Your task to perform on an android device: Open Android settings Image 0: 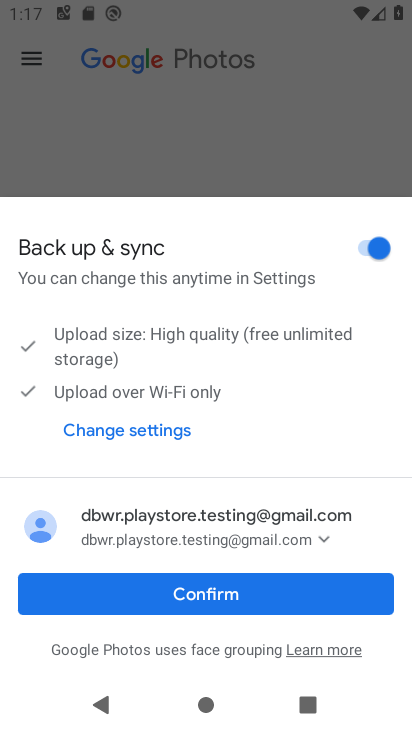
Step 0: press home button
Your task to perform on an android device: Open Android settings Image 1: 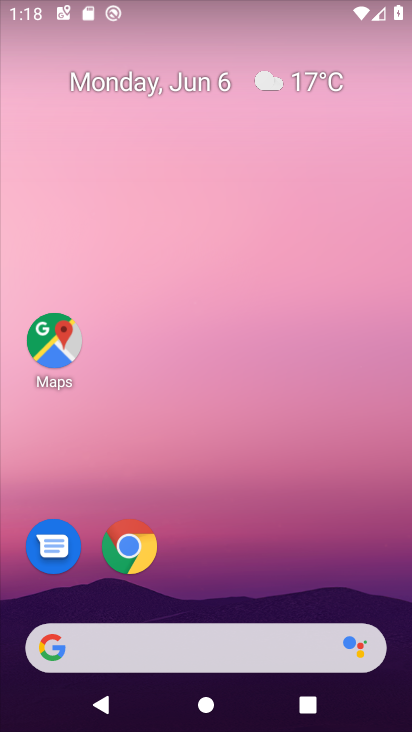
Step 1: drag from (207, 636) to (211, 4)
Your task to perform on an android device: Open Android settings Image 2: 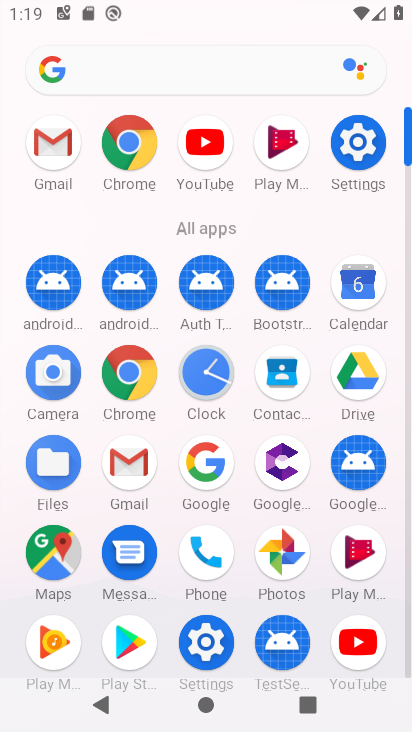
Step 2: click (358, 114)
Your task to perform on an android device: Open Android settings Image 3: 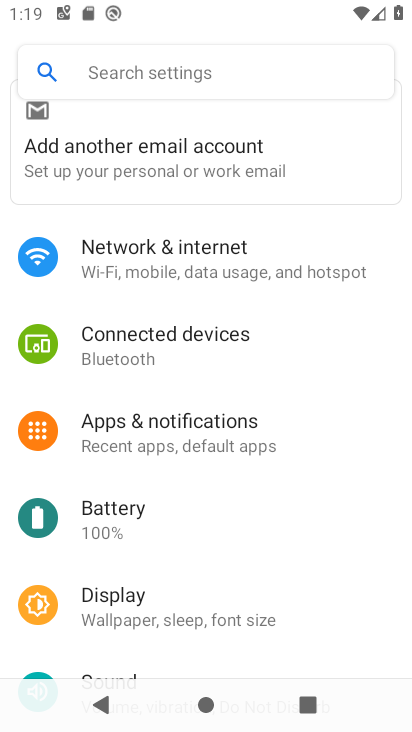
Step 3: task complete